Your task to perform on an android device: Add usb-c to usb-a to the cart on amazon.com, then select checkout. Image 0: 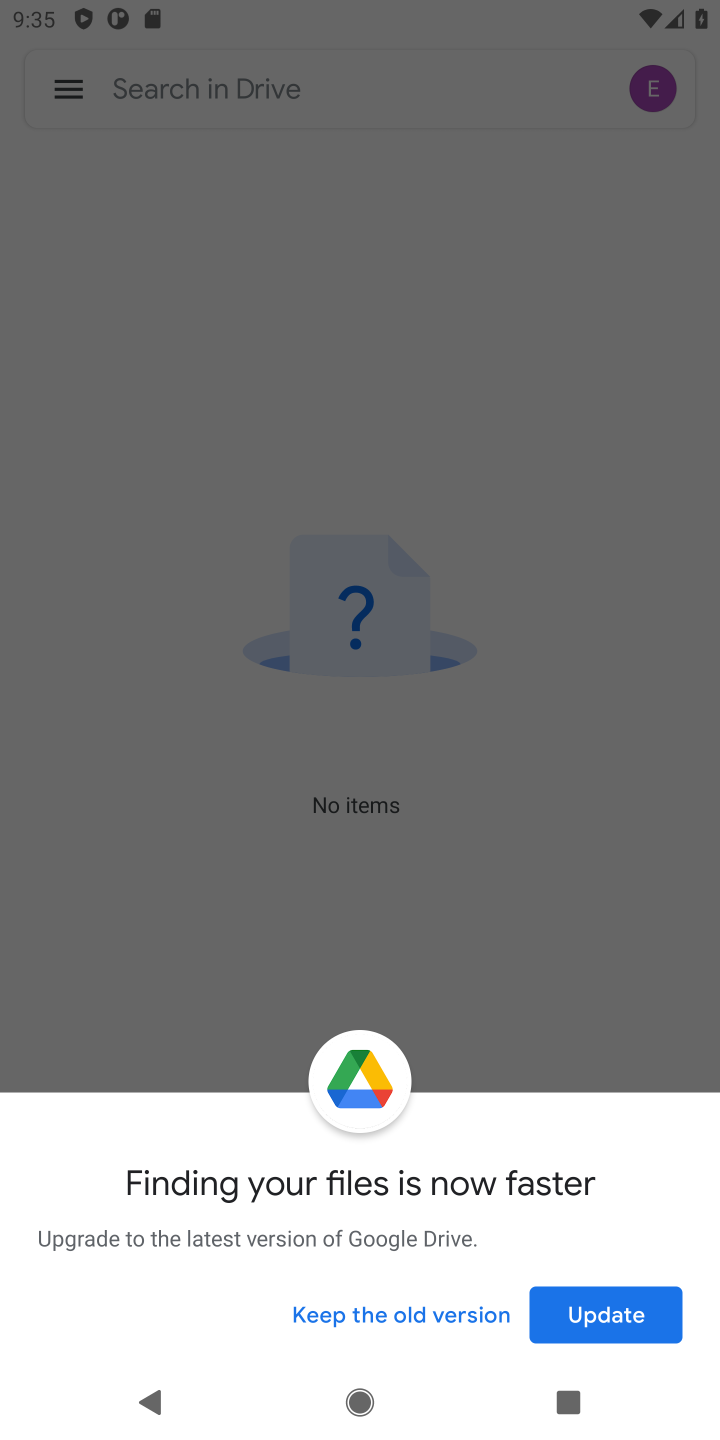
Step 0: press home button
Your task to perform on an android device: Add usb-c to usb-a to the cart on amazon.com, then select checkout. Image 1: 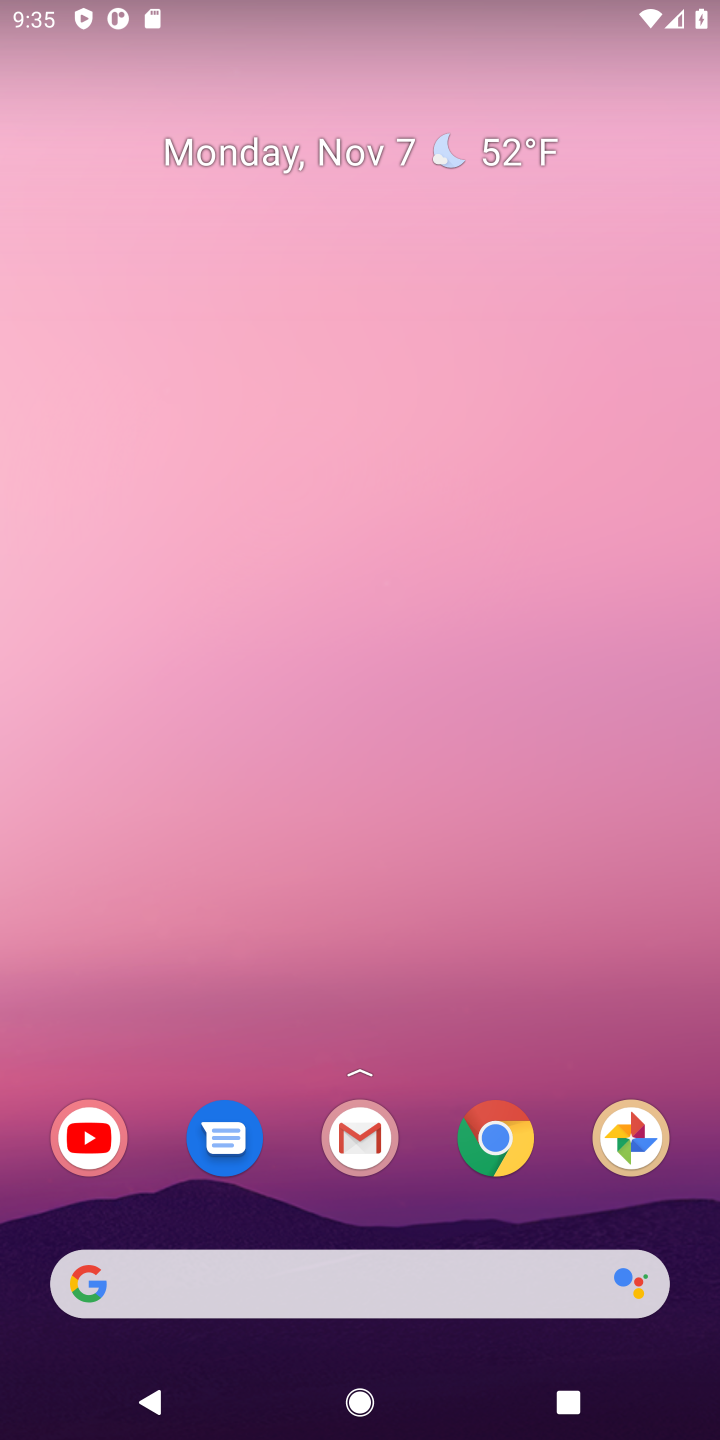
Step 1: drag from (507, 1233) to (506, 702)
Your task to perform on an android device: Add usb-c to usb-a to the cart on amazon.com, then select checkout. Image 2: 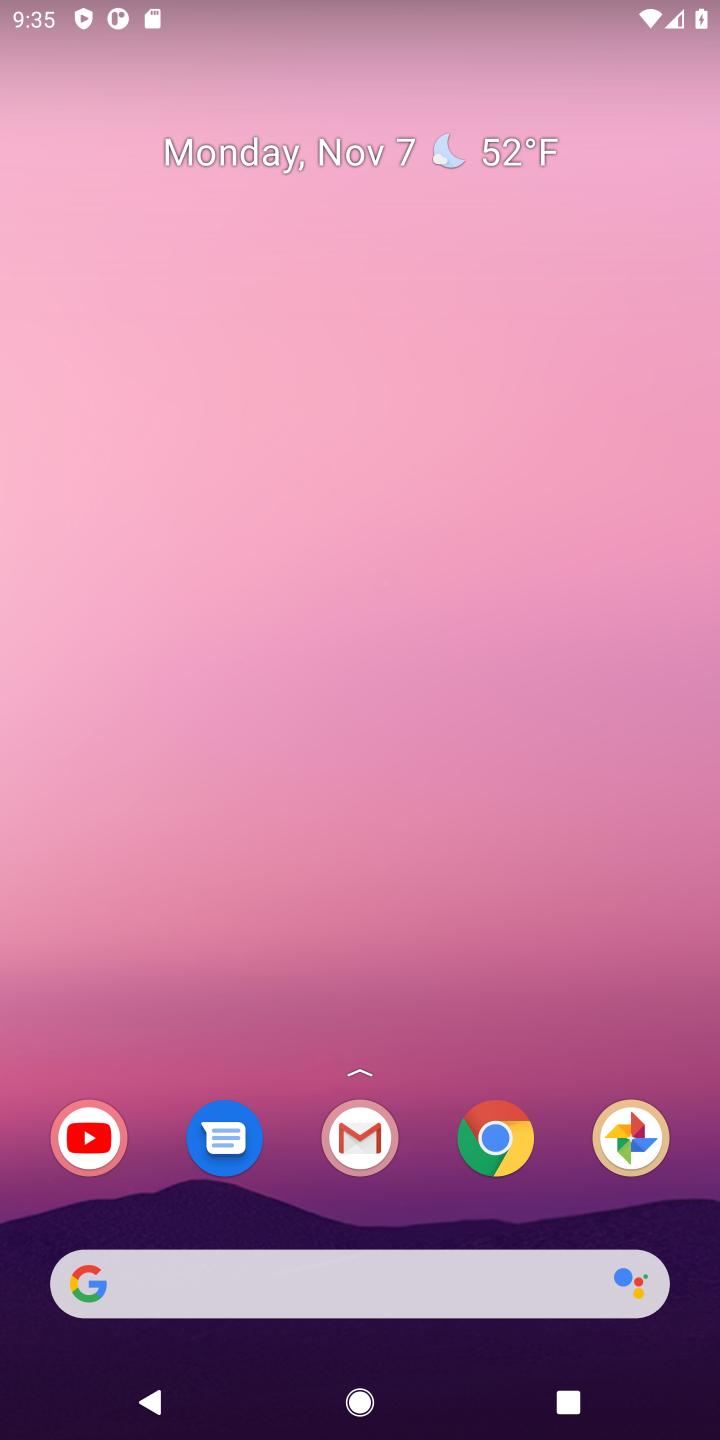
Step 2: drag from (440, 656) to (472, 522)
Your task to perform on an android device: Add usb-c to usb-a to the cart on amazon.com, then select checkout. Image 3: 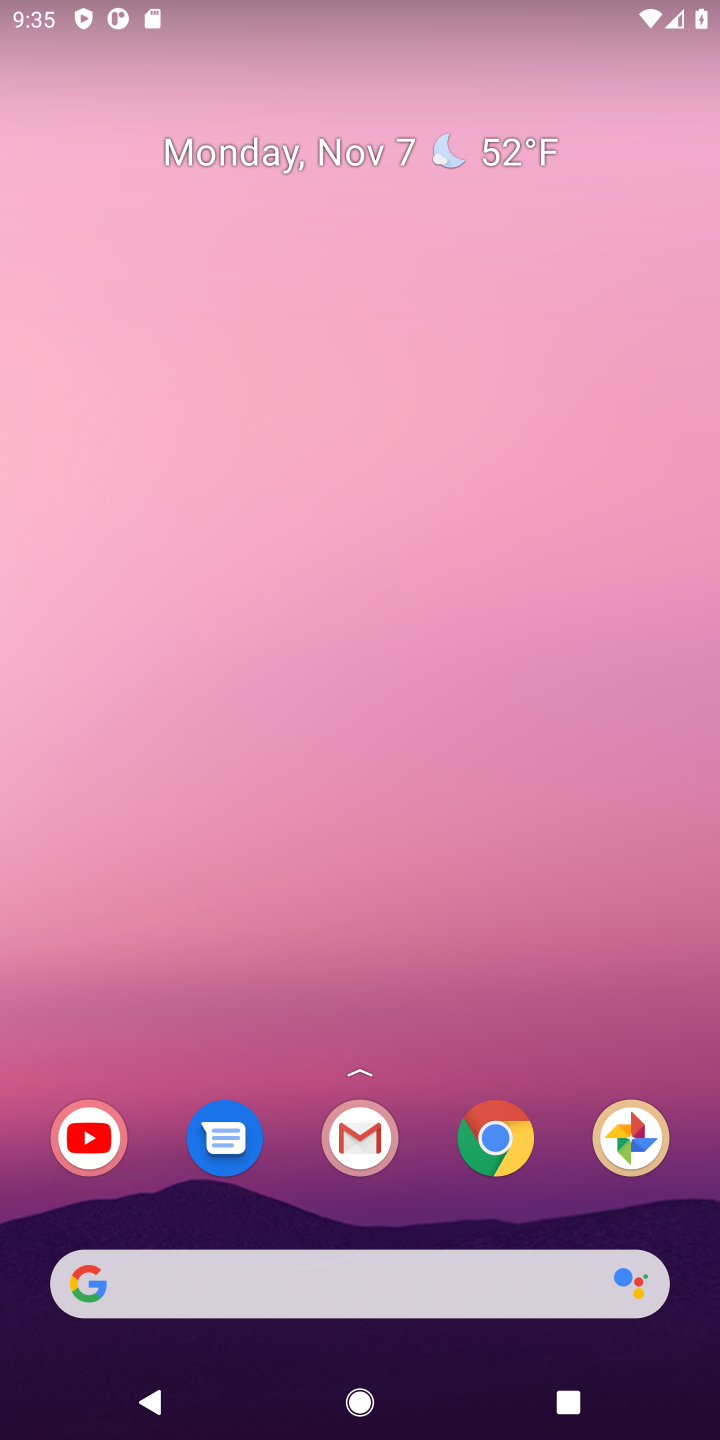
Step 3: drag from (329, 990) to (255, 295)
Your task to perform on an android device: Add usb-c to usb-a to the cart on amazon.com, then select checkout. Image 4: 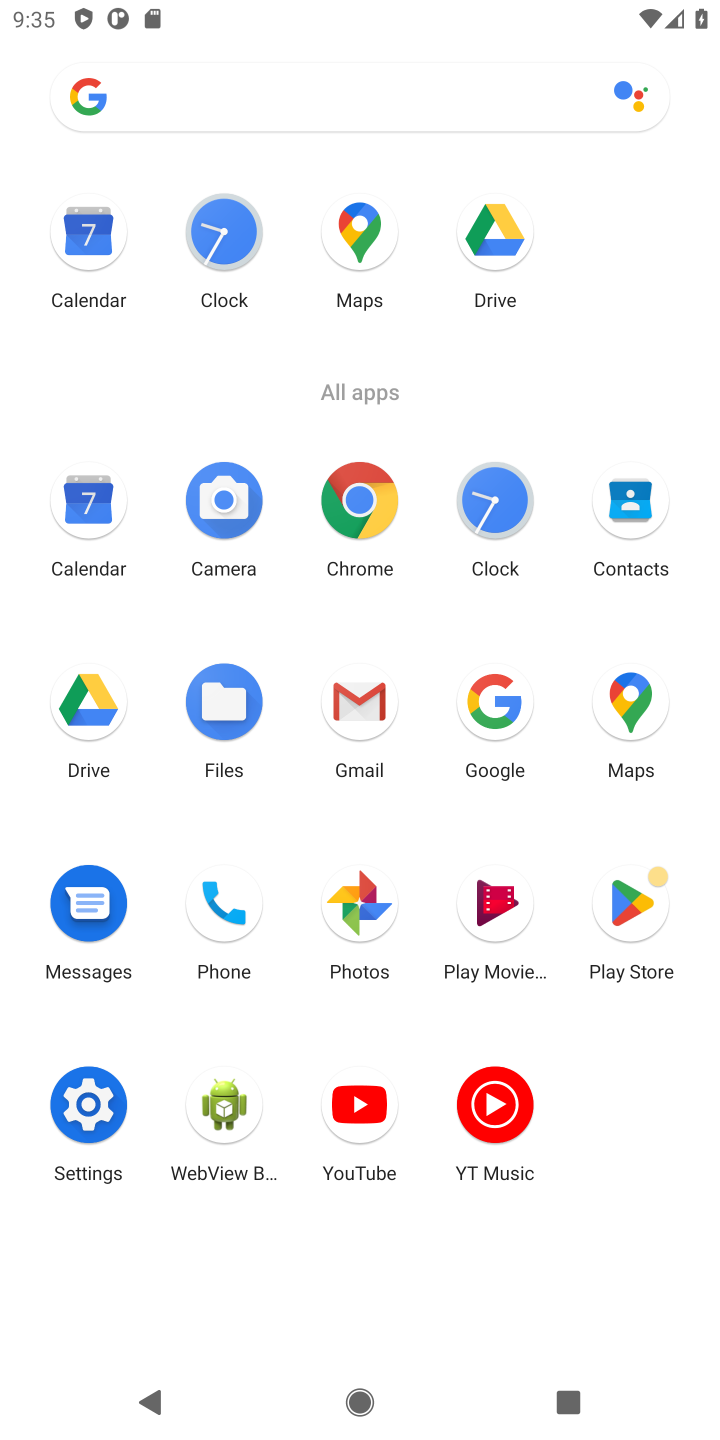
Step 4: click (524, 762)
Your task to perform on an android device: Add usb-c to usb-a to the cart on amazon.com, then select checkout. Image 5: 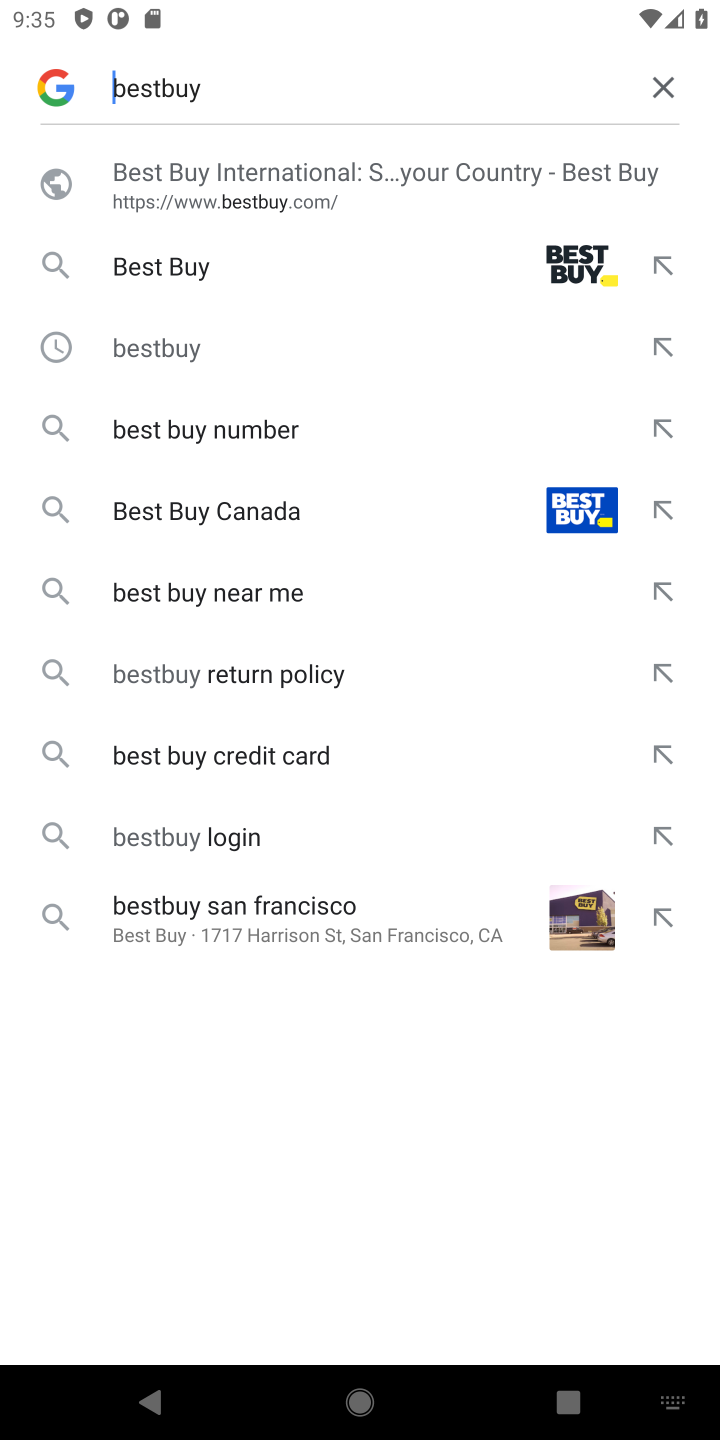
Step 5: click (664, 91)
Your task to perform on an android device: Add usb-c to usb-a to the cart on amazon.com, then select checkout. Image 6: 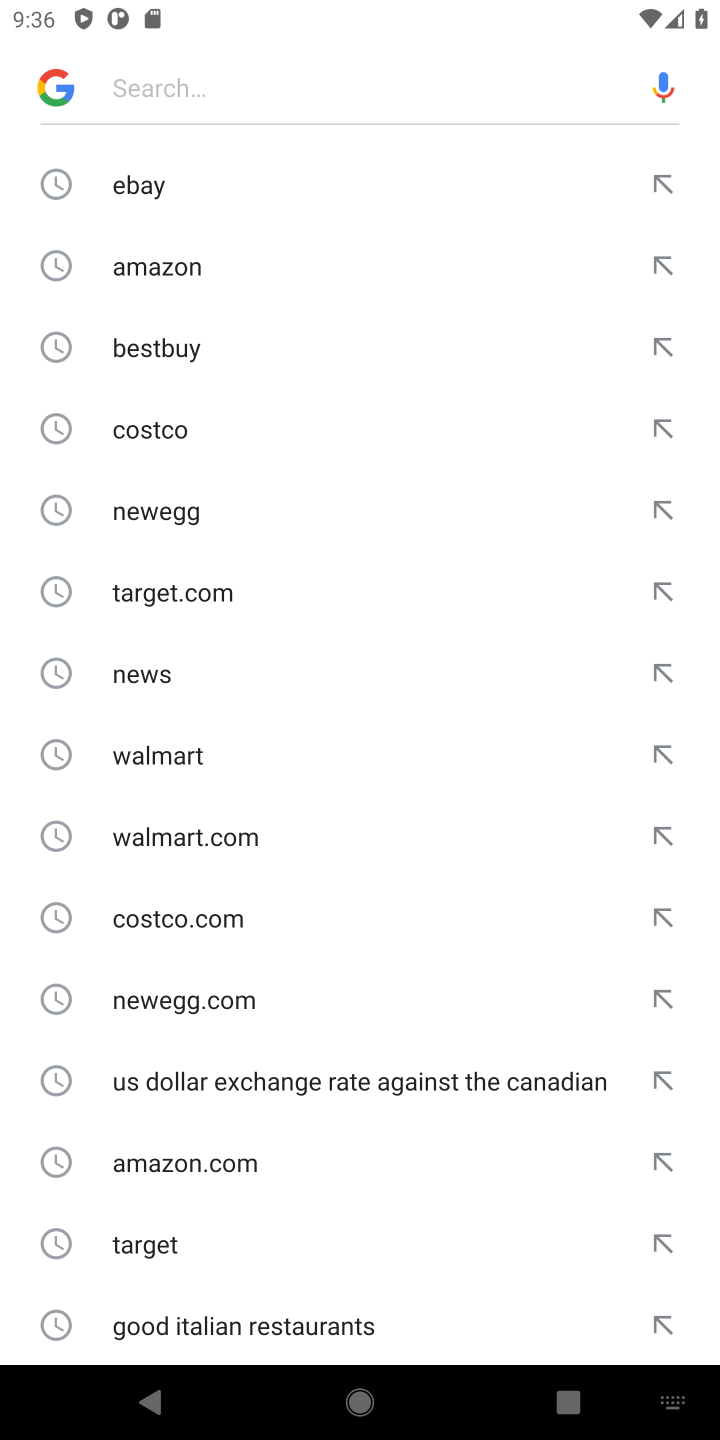
Step 6: click (229, 280)
Your task to perform on an android device: Add usb-c to usb-a to the cart on amazon.com, then select checkout. Image 7: 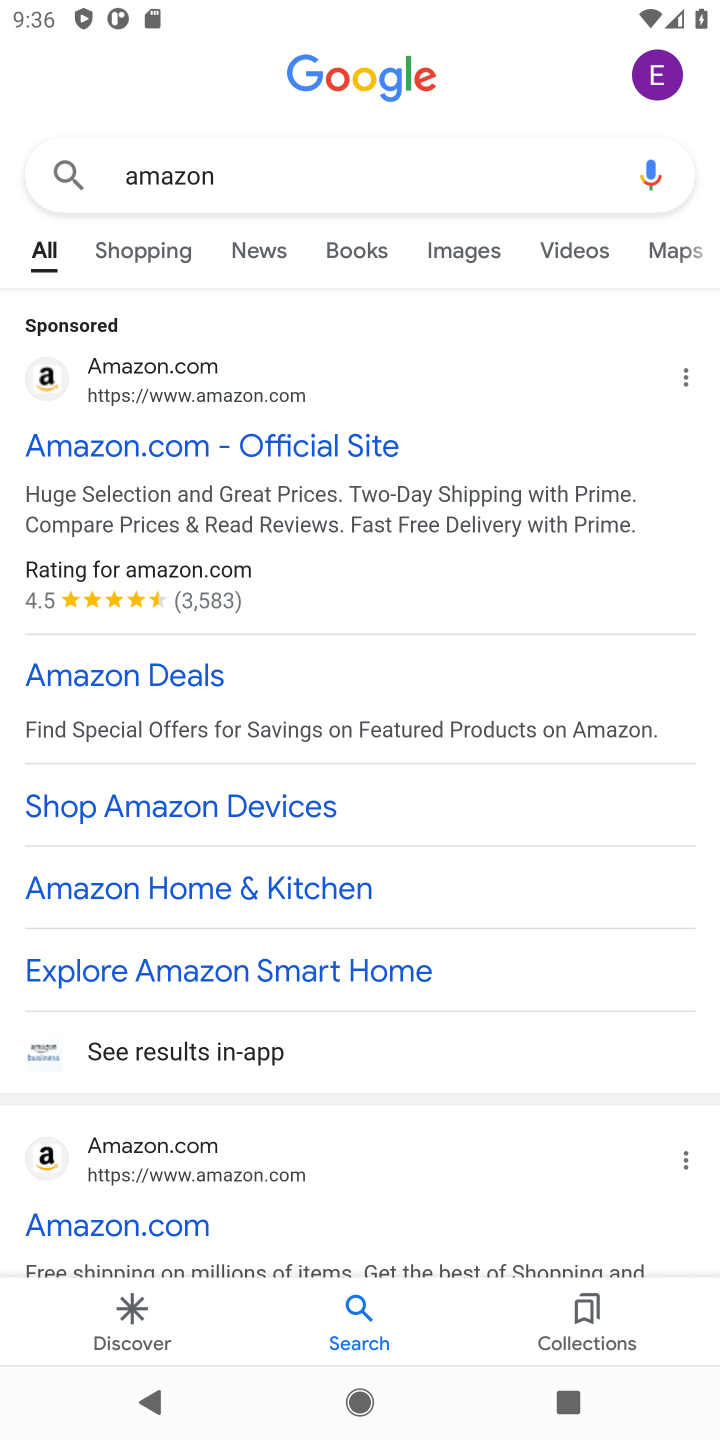
Step 7: click (192, 442)
Your task to perform on an android device: Add usb-c to usb-a to the cart on amazon.com, then select checkout. Image 8: 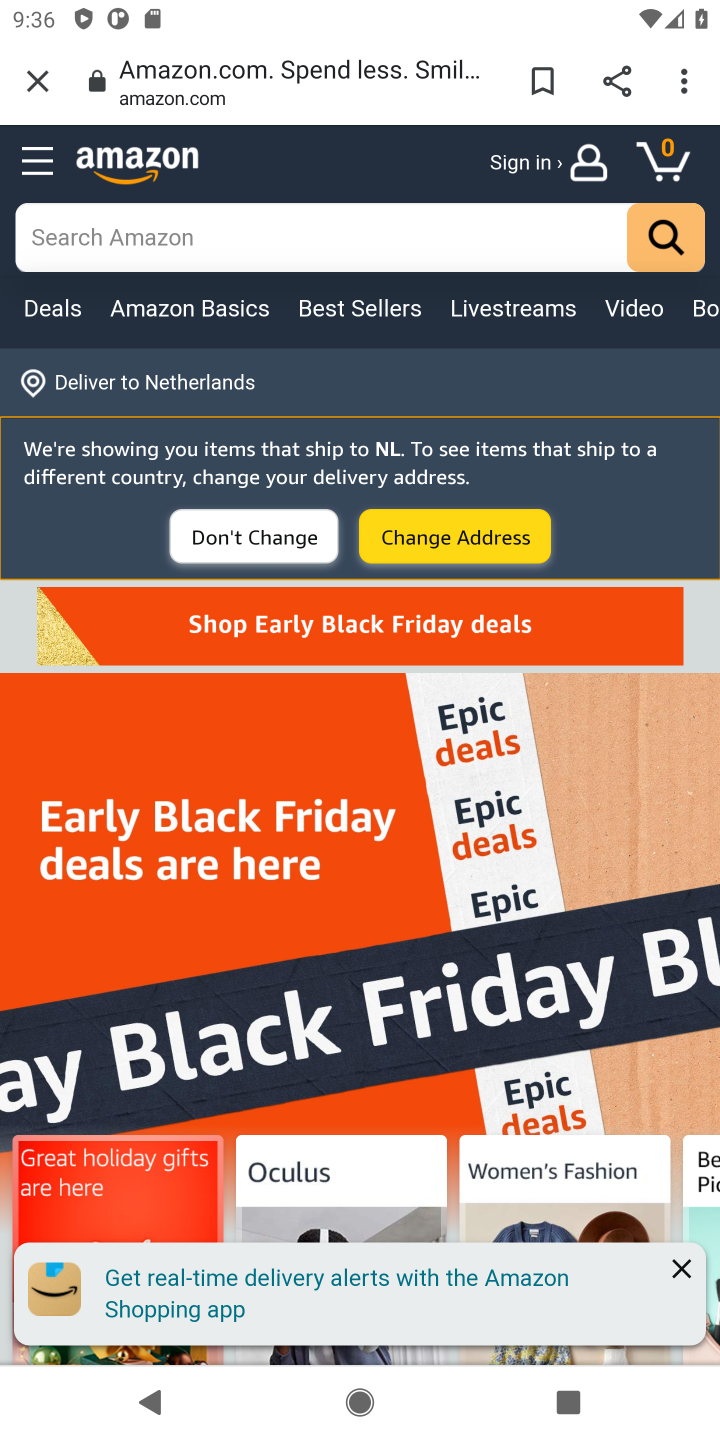
Step 8: click (348, 234)
Your task to perform on an android device: Add usb-c to usb-a to the cart on amazon.com, then select checkout. Image 9: 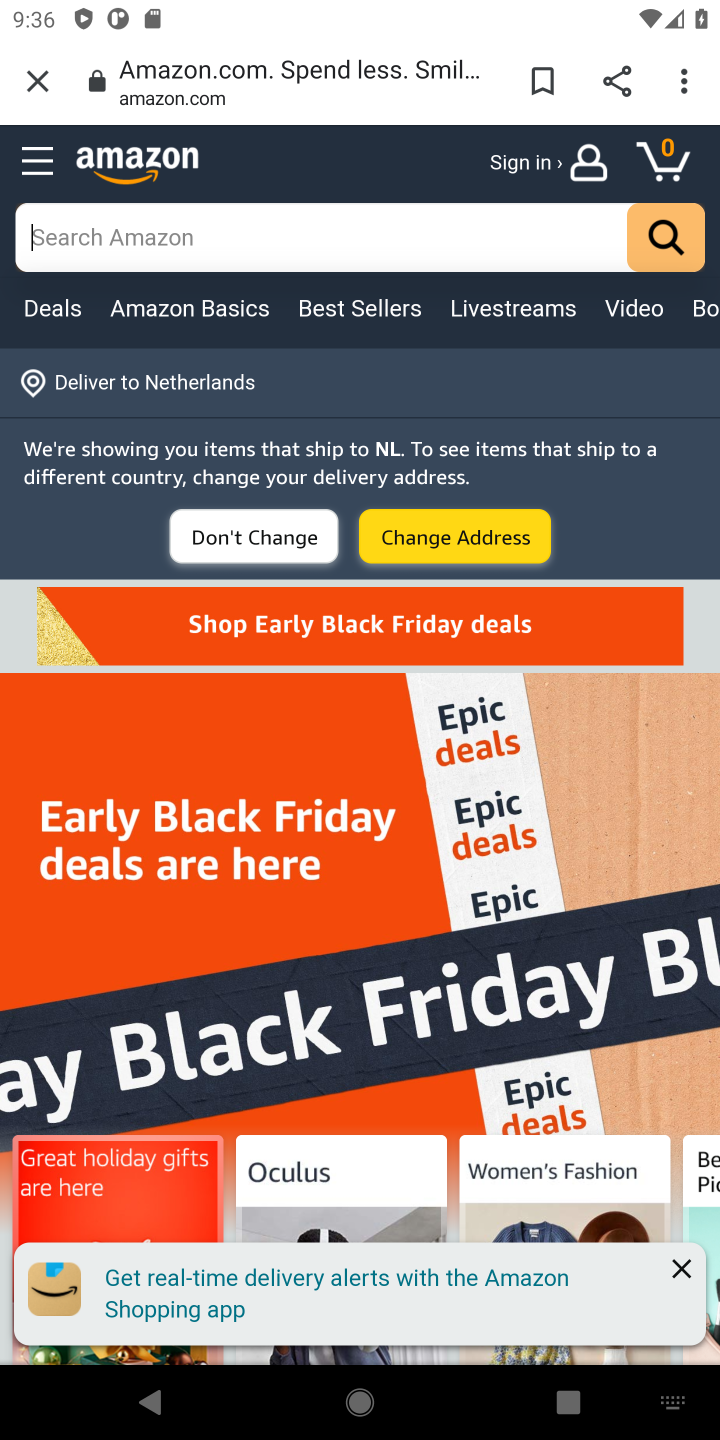
Step 9: type "usb-c to usb-a"
Your task to perform on an android device: Add usb-c to usb-a to the cart on amazon.com, then select checkout. Image 10: 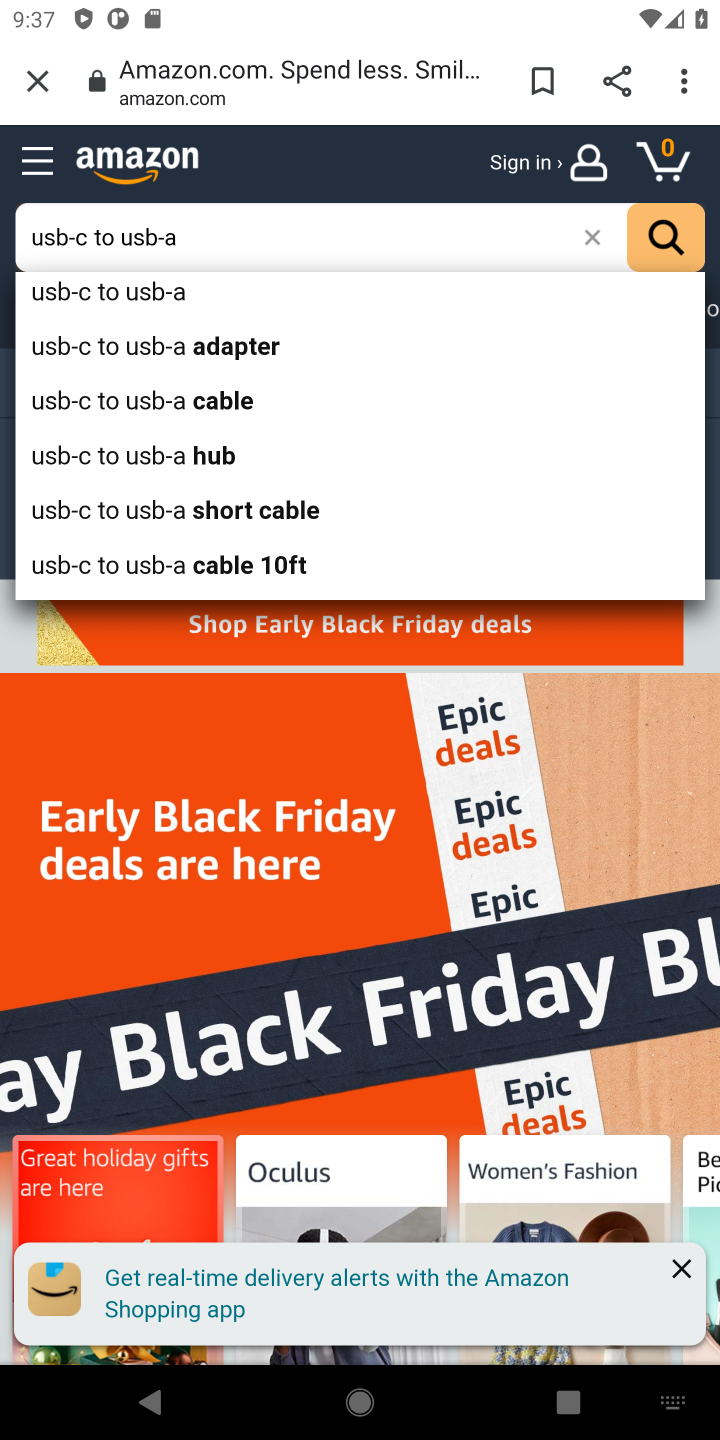
Step 10: click (84, 292)
Your task to perform on an android device: Add usb-c to usb-a to the cart on amazon.com, then select checkout. Image 11: 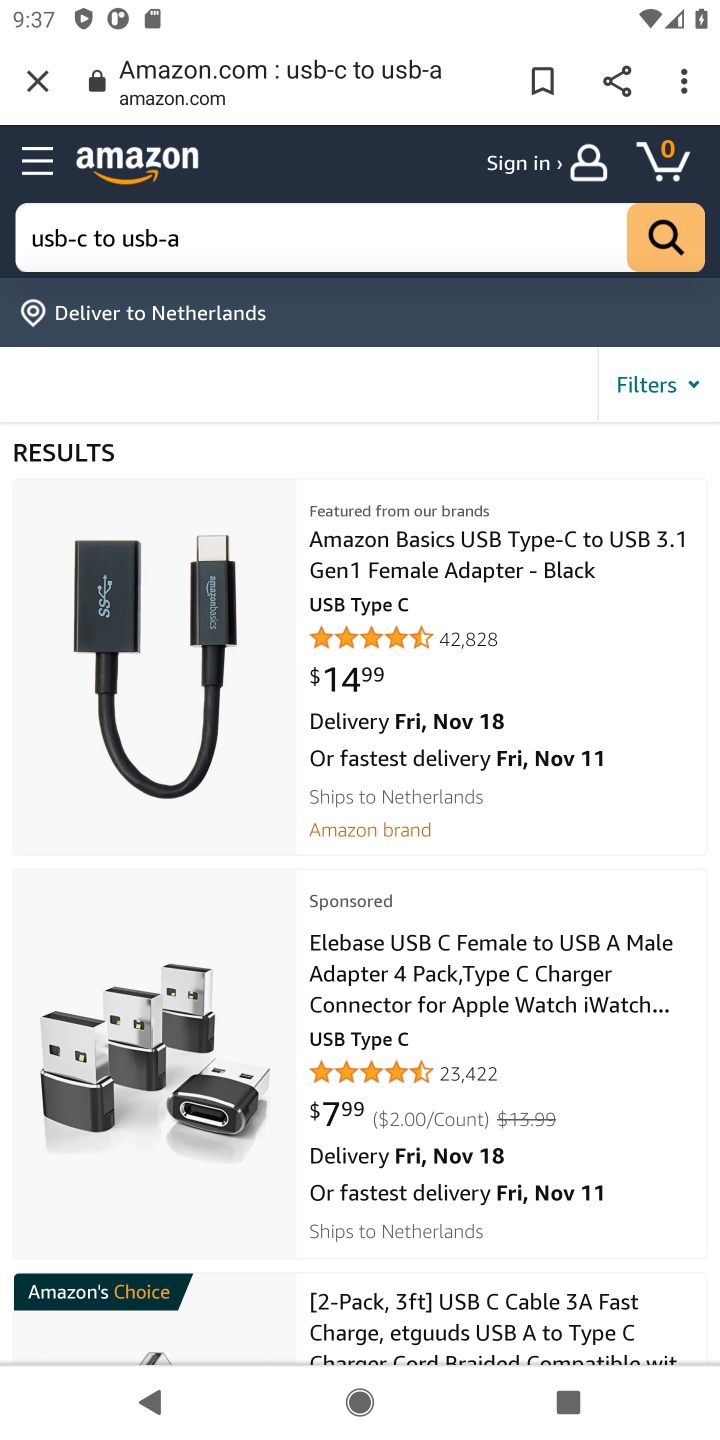
Step 11: click (436, 546)
Your task to perform on an android device: Add usb-c to usb-a to the cart on amazon.com, then select checkout. Image 12: 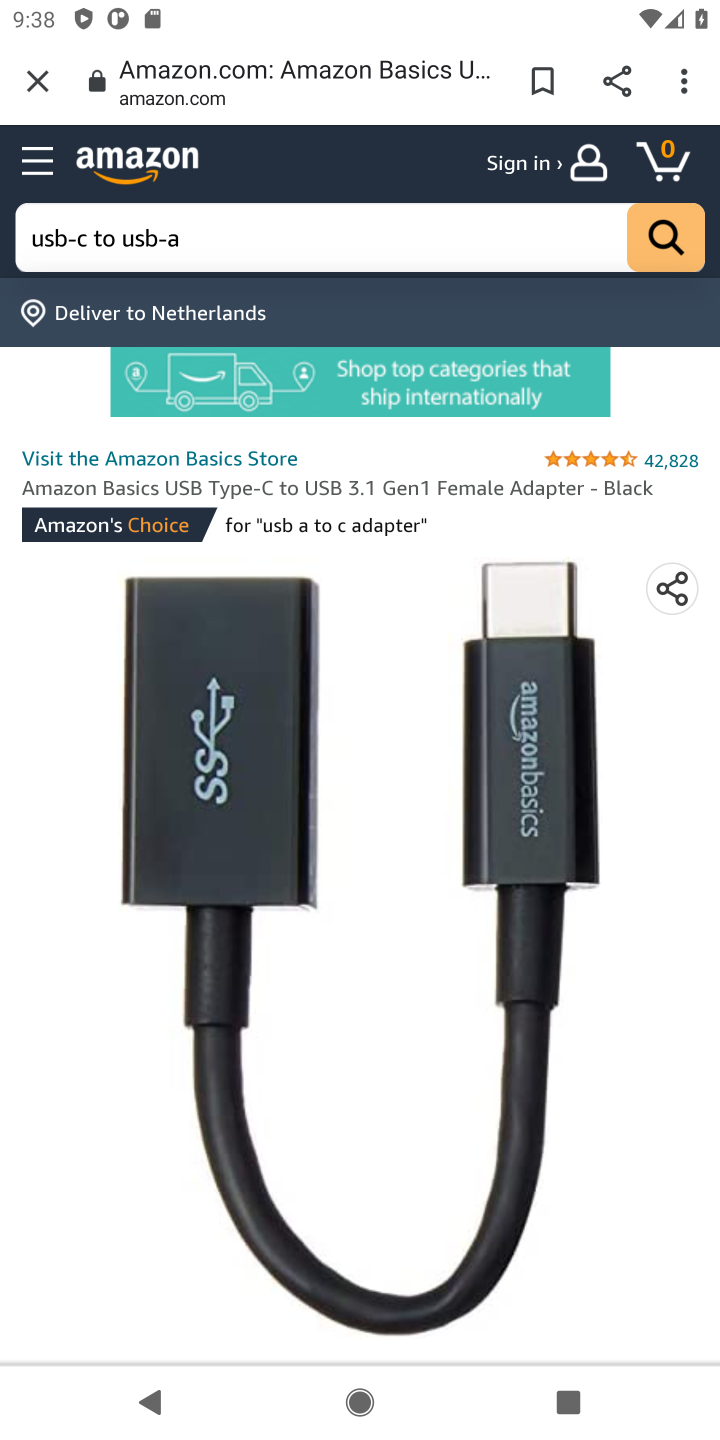
Step 12: drag from (559, 1009) to (487, 171)
Your task to perform on an android device: Add usb-c to usb-a to the cart on amazon.com, then select checkout. Image 13: 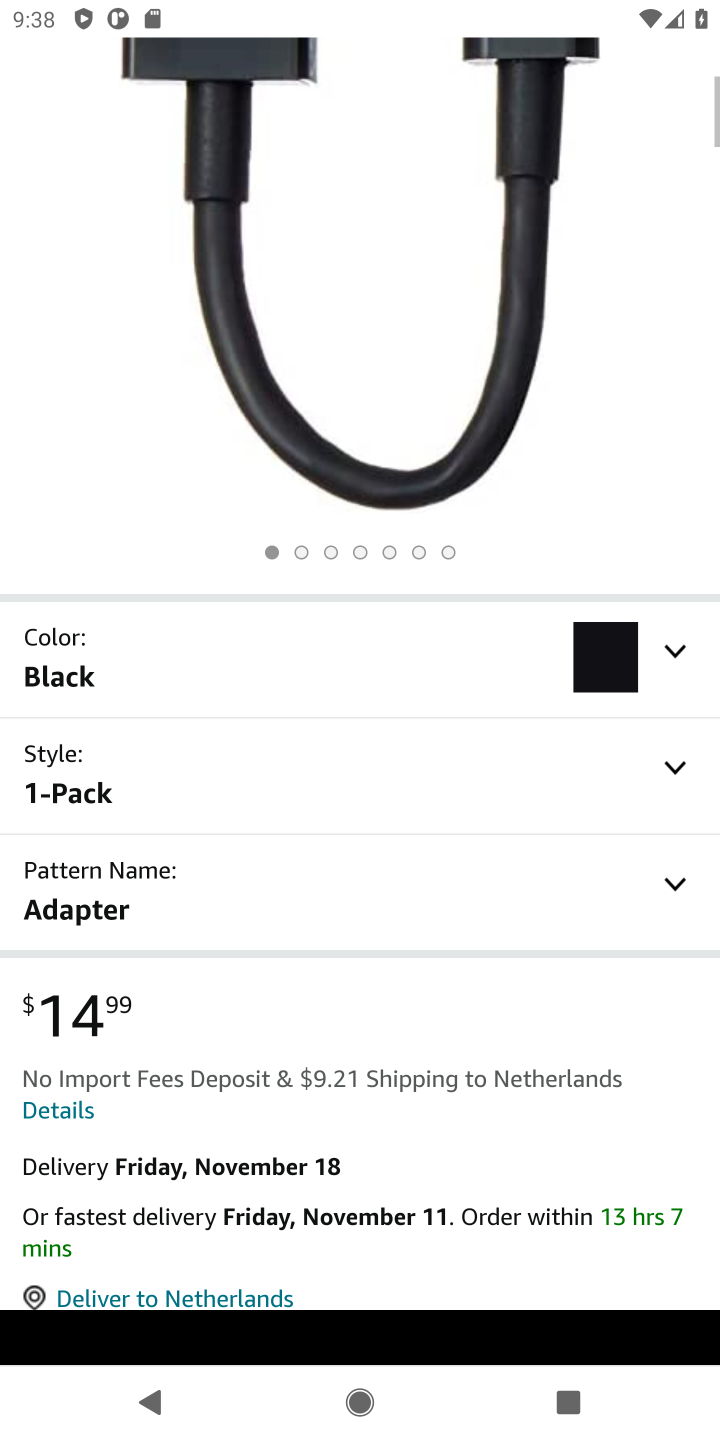
Step 13: drag from (389, 837) to (442, 239)
Your task to perform on an android device: Add usb-c to usb-a to the cart on amazon.com, then select checkout. Image 14: 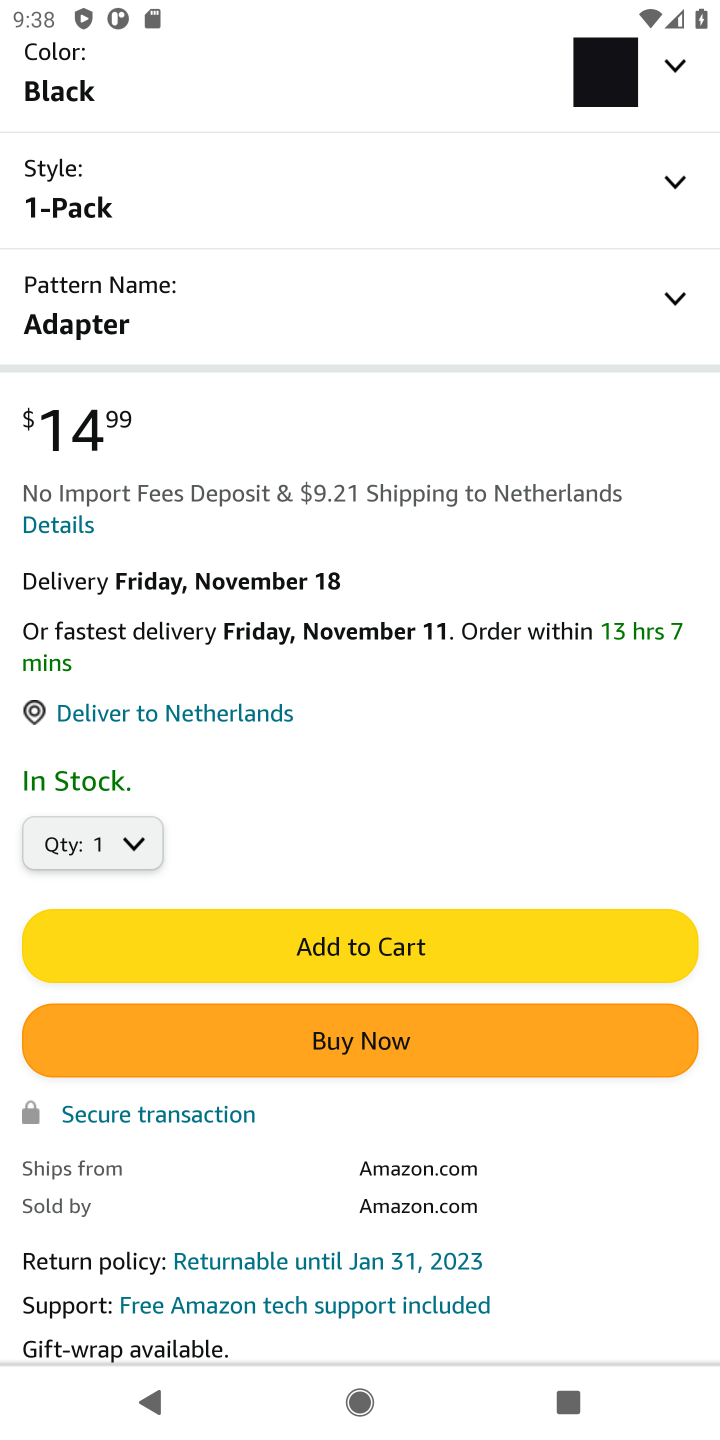
Step 14: click (420, 955)
Your task to perform on an android device: Add usb-c to usb-a to the cart on amazon.com, then select checkout. Image 15: 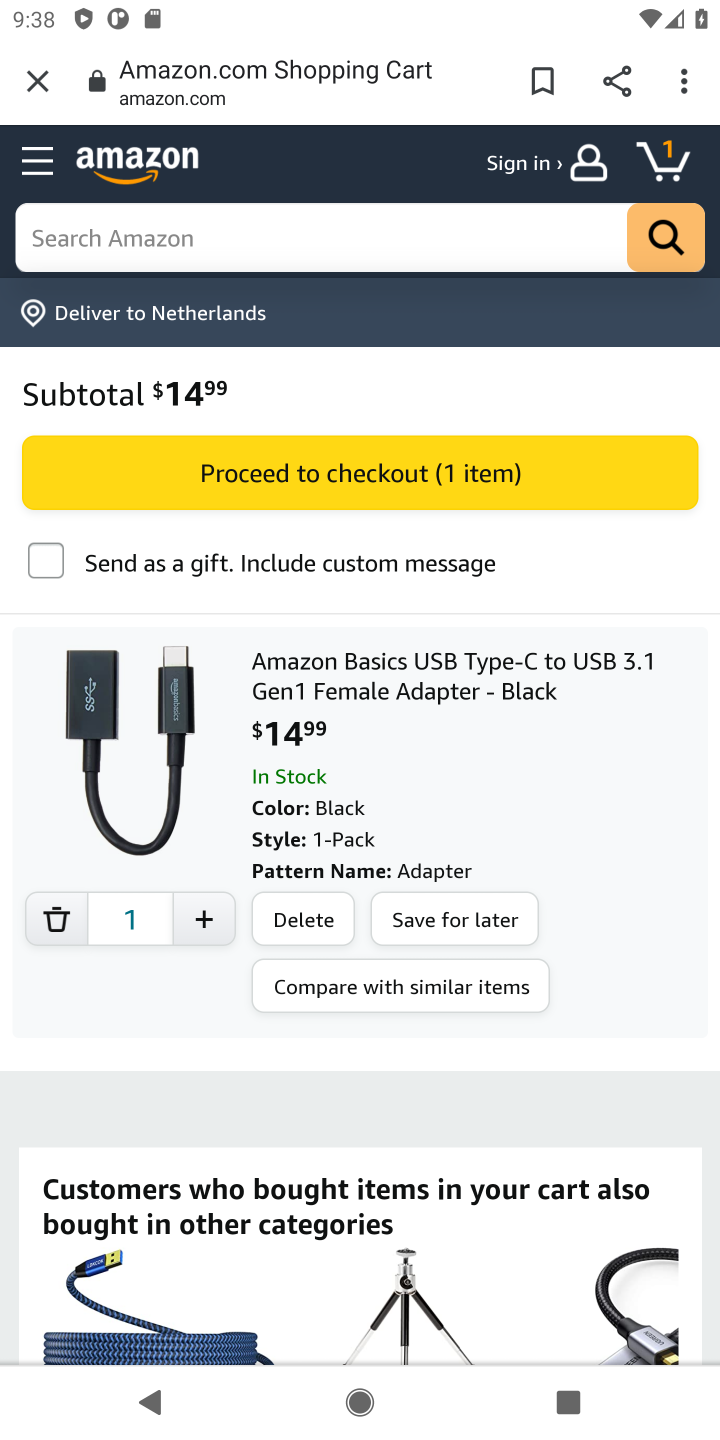
Step 15: click (451, 478)
Your task to perform on an android device: Add usb-c to usb-a to the cart on amazon.com, then select checkout. Image 16: 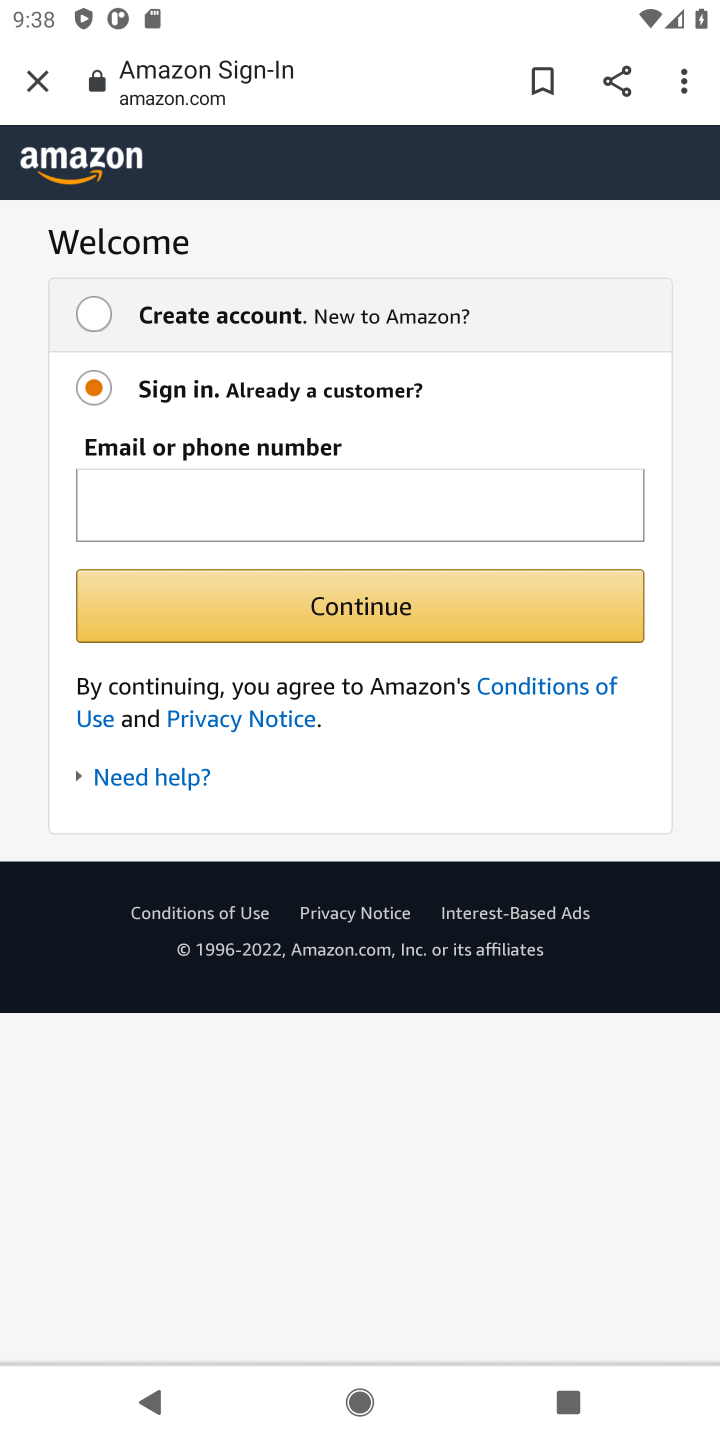
Step 16: task complete